Your task to perform on an android device: When is my next meeting? Image 0: 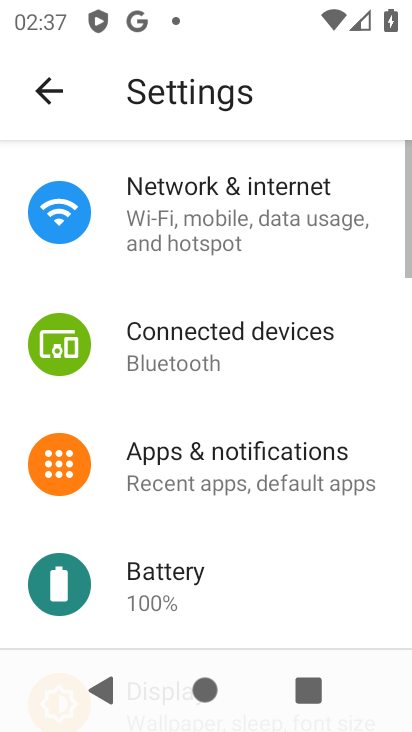
Step 0: press home button
Your task to perform on an android device: When is my next meeting? Image 1: 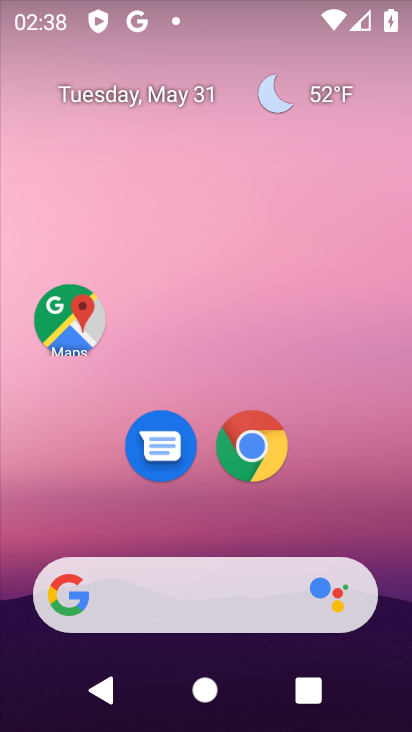
Step 1: drag from (321, 510) to (250, 94)
Your task to perform on an android device: When is my next meeting? Image 2: 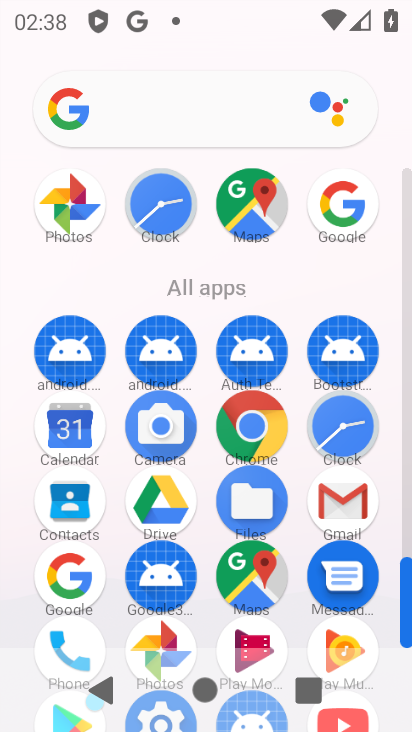
Step 2: click (71, 428)
Your task to perform on an android device: When is my next meeting? Image 3: 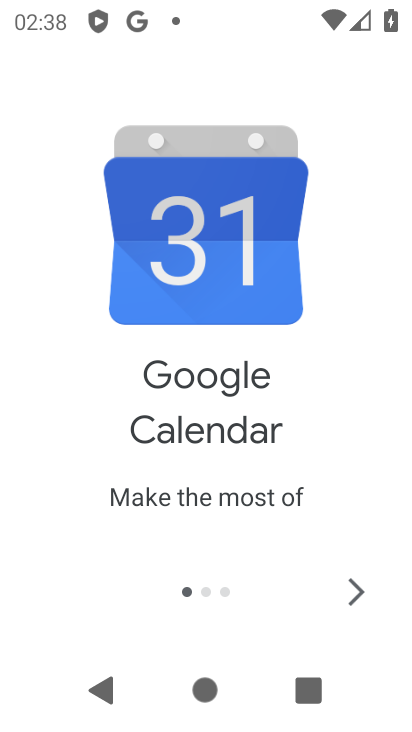
Step 3: click (356, 586)
Your task to perform on an android device: When is my next meeting? Image 4: 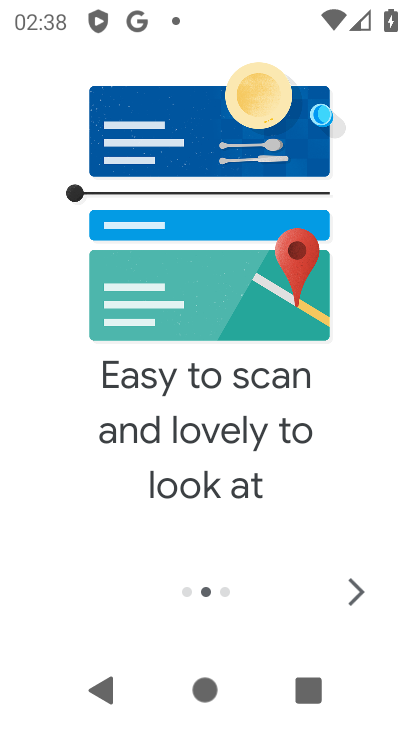
Step 4: click (356, 586)
Your task to perform on an android device: When is my next meeting? Image 5: 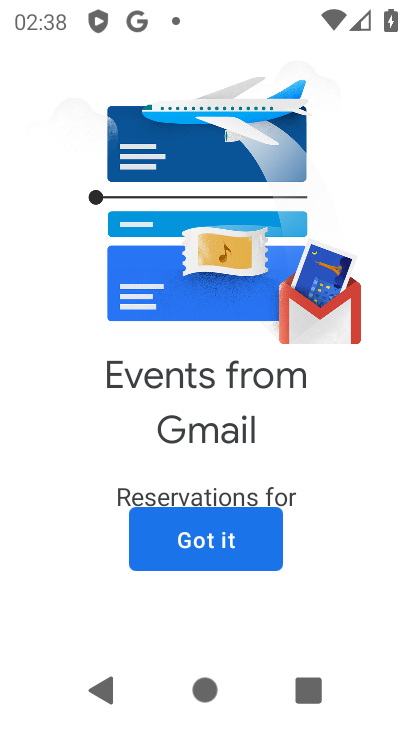
Step 5: click (207, 535)
Your task to perform on an android device: When is my next meeting? Image 6: 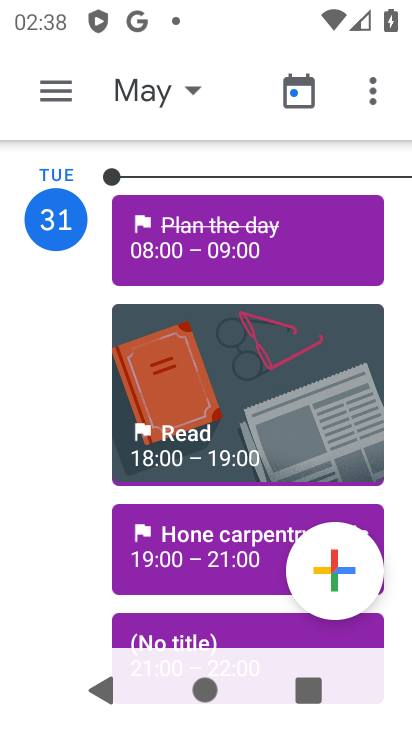
Step 6: drag from (210, 516) to (307, 290)
Your task to perform on an android device: When is my next meeting? Image 7: 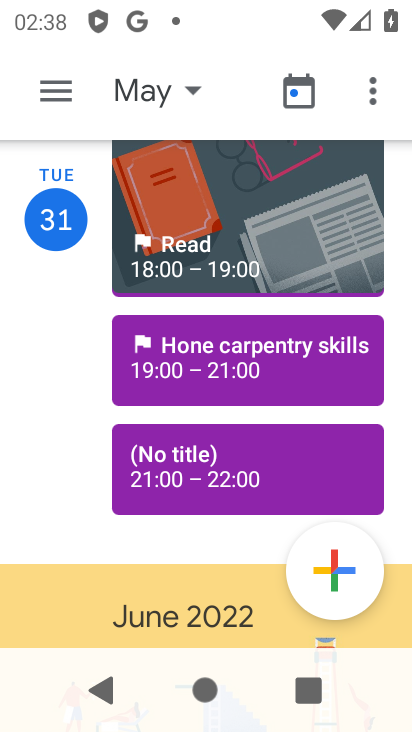
Step 7: drag from (214, 468) to (297, 247)
Your task to perform on an android device: When is my next meeting? Image 8: 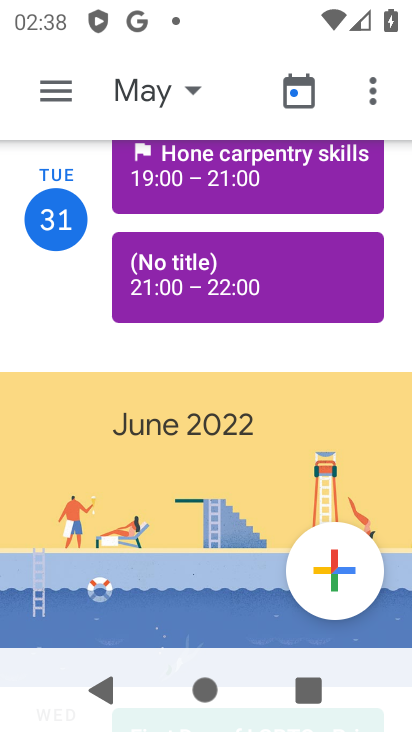
Step 8: click (197, 91)
Your task to perform on an android device: When is my next meeting? Image 9: 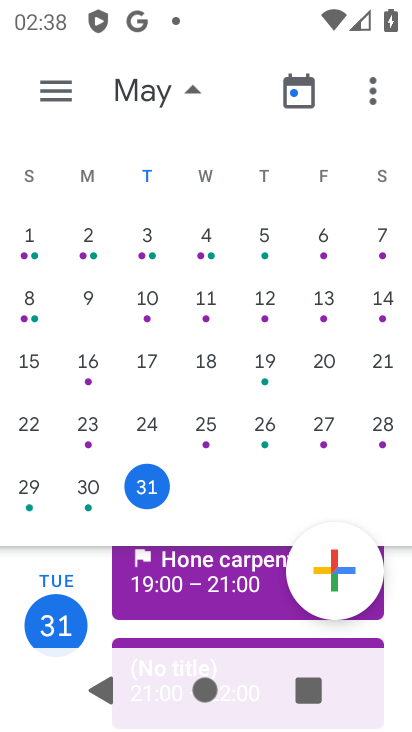
Step 9: drag from (383, 393) to (3, 431)
Your task to perform on an android device: When is my next meeting? Image 10: 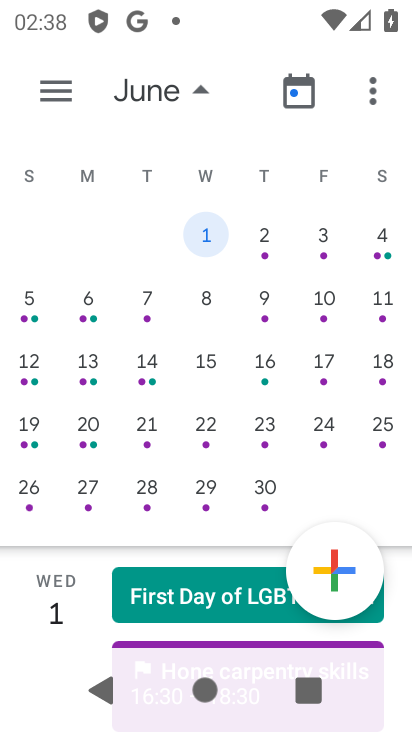
Step 10: click (51, 96)
Your task to perform on an android device: When is my next meeting? Image 11: 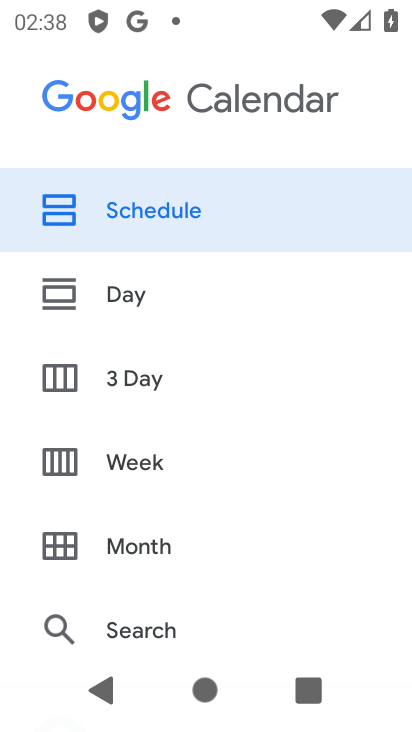
Step 11: click (126, 195)
Your task to perform on an android device: When is my next meeting? Image 12: 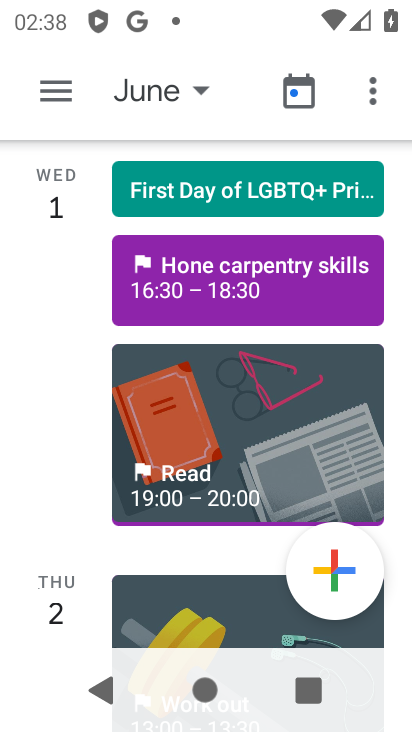
Step 12: task complete